Your task to perform on an android device: check android version Image 0: 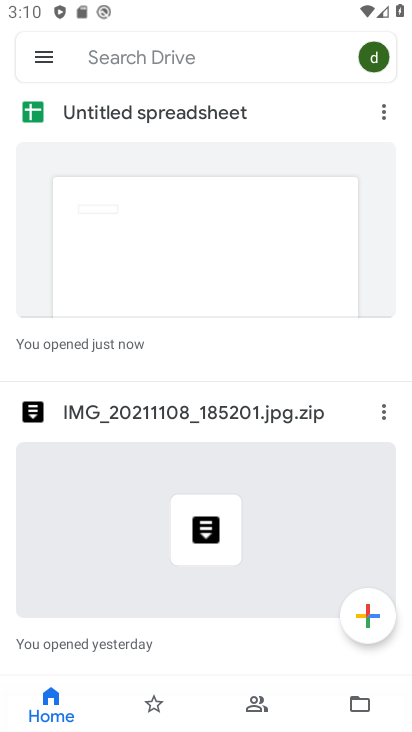
Step 0: press home button
Your task to perform on an android device: check android version Image 1: 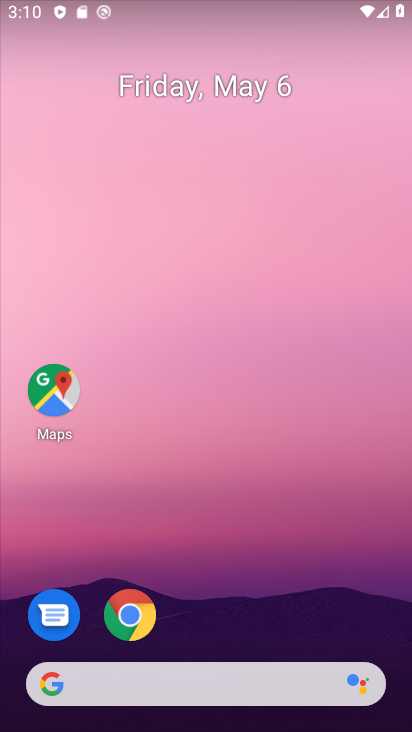
Step 1: drag from (320, 610) to (306, 97)
Your task to perform on an android device: check android version Image 2: 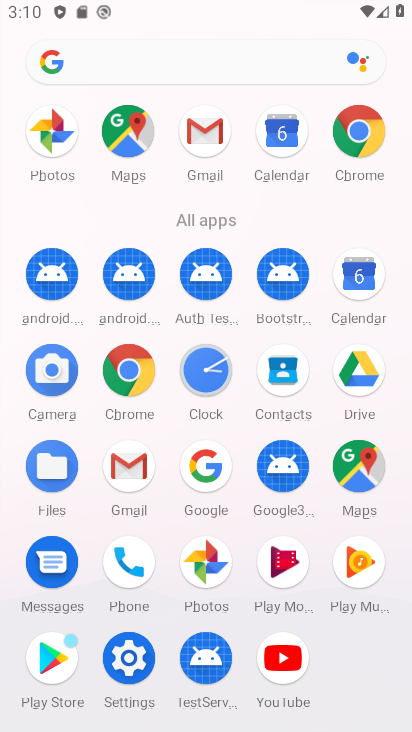
Step 2: click (135, 652)
Your task to perform on an android device: check android version Image 3: 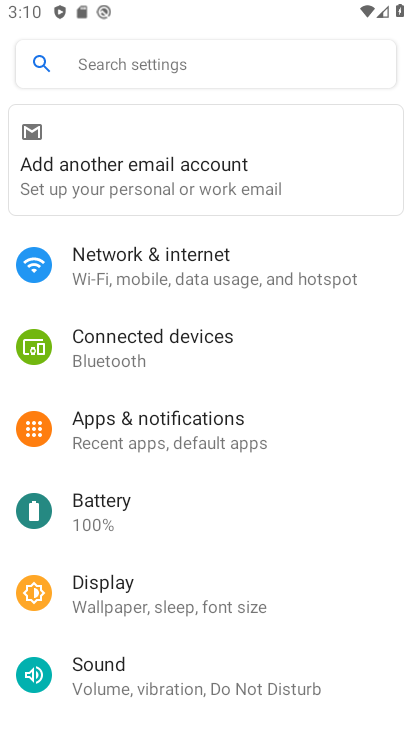
Step 3: drag from (313, 619) to (303, 206)
Your task to perform on an android device: check android version Image 4: 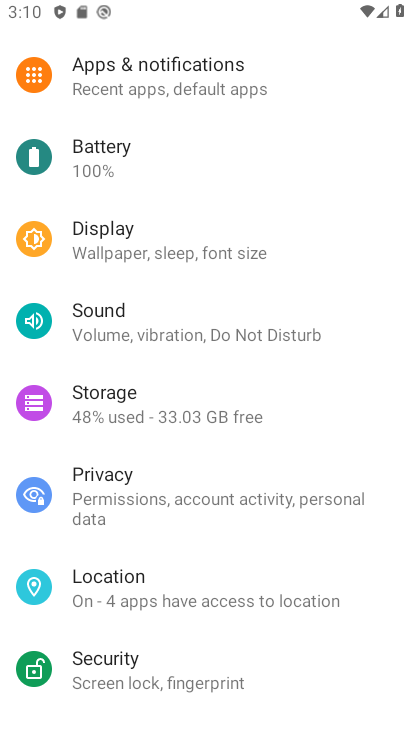
Step 4: drag from (219, 673) to (188, 266)
Your task to perform on an android device: check android version Image 5: 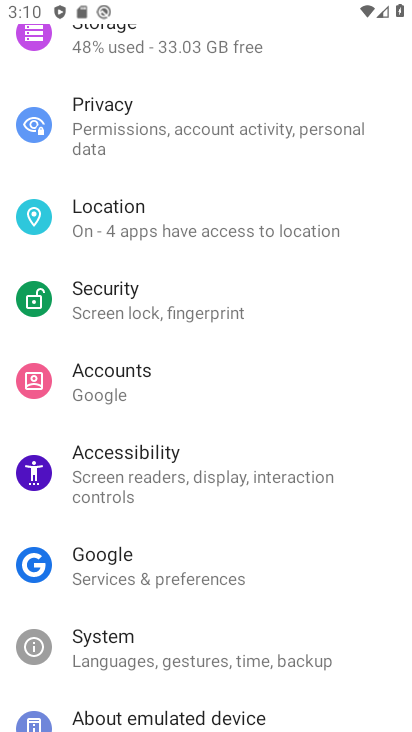
Step 5: drag from (275, 699) to (263, 363)
Your task to perform on an android device: check android version Image 6: 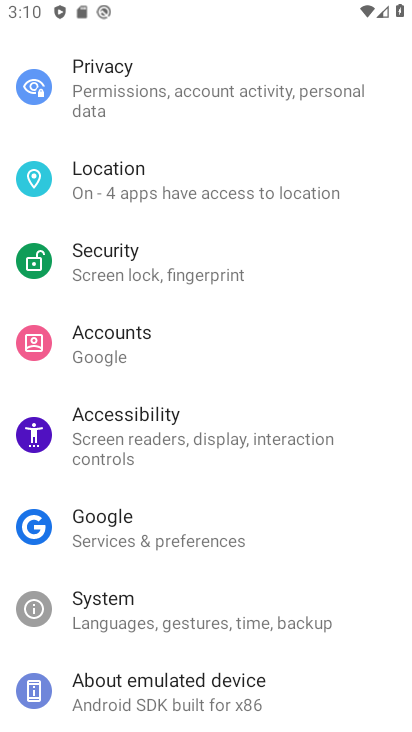
Step 6: click (204, 685)
Your task to perform on an android device: check android version Image 7: 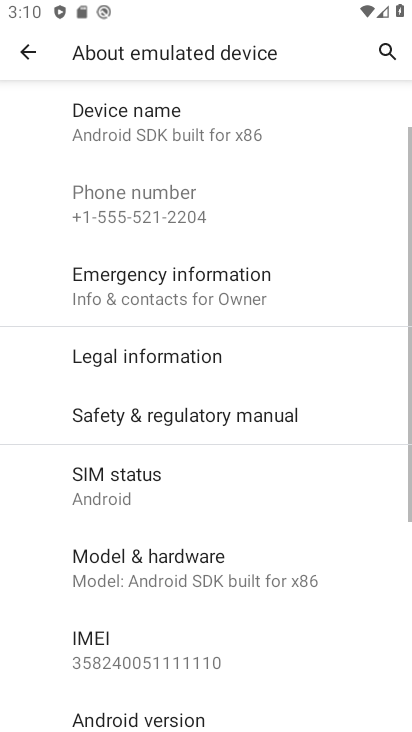
Step 7: drag from (308, 666) to (348, 287)
Your task to perform on an android device: check android version Image 8: 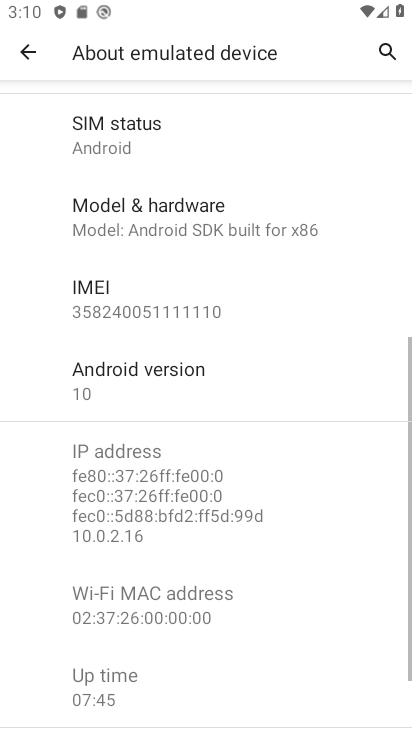
Step 8: click (152, 384)
Your task to perform on an android device: check android version Image 9: 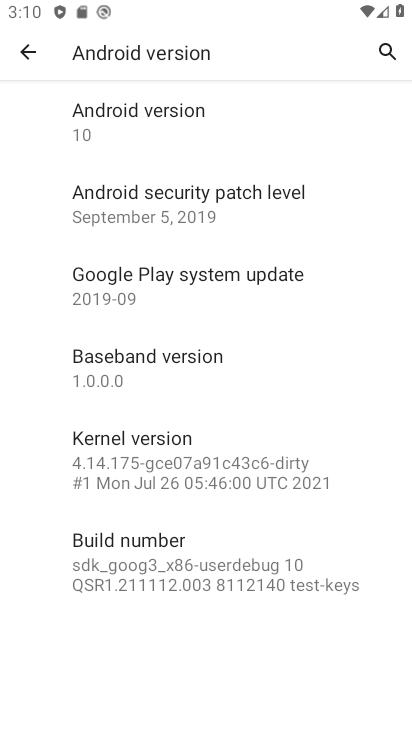
Step 9: task complete